Your task to perform on an android device: check battery use Image 0: 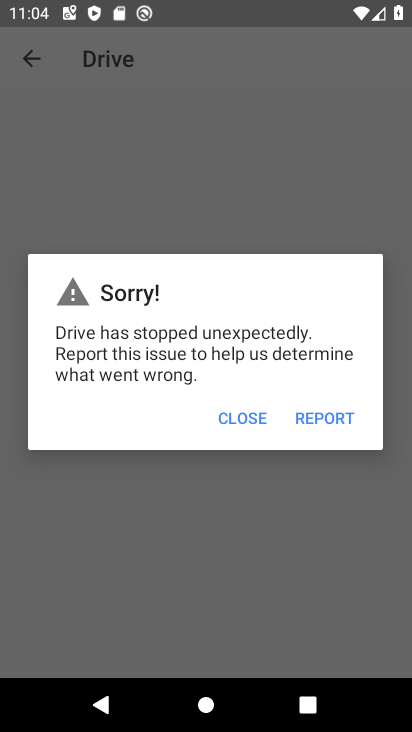
Step 0: press home button
Your task to perform on an android device: check battery use Image 1: 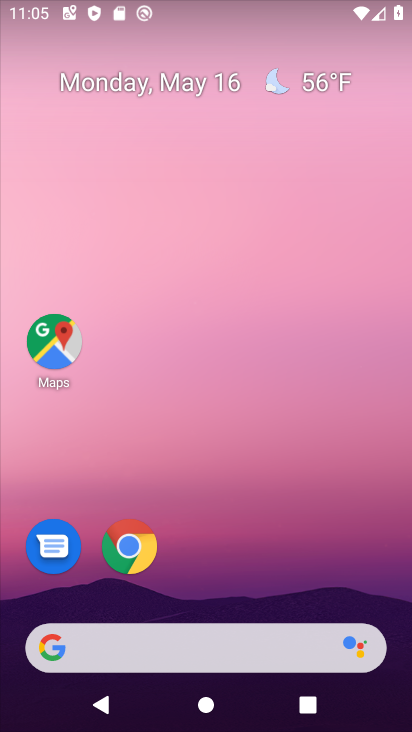
Step 1: drag from (363, 527) to (275, 2)
Your task to perform on an android device: check battery use Image 2: 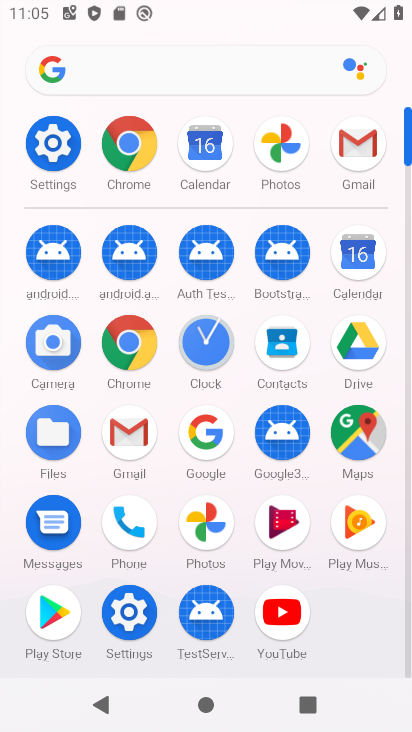
Step 2: click (52, 143)
Your task to perform on an android device: check battery use Image 3: 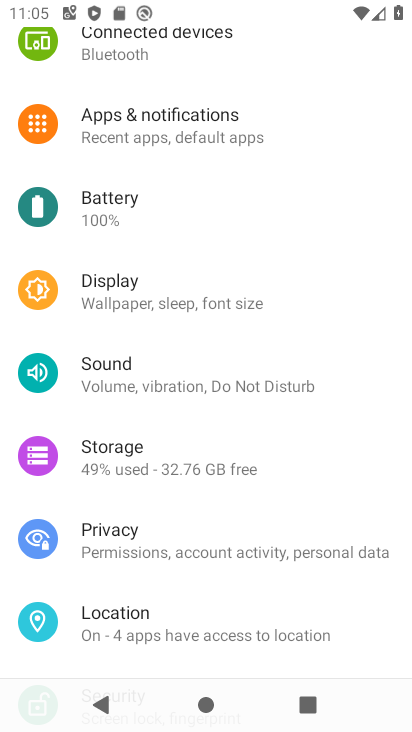
Step 3: click (134, 195)
Your task to perform on an android device: check battery use Image 4: 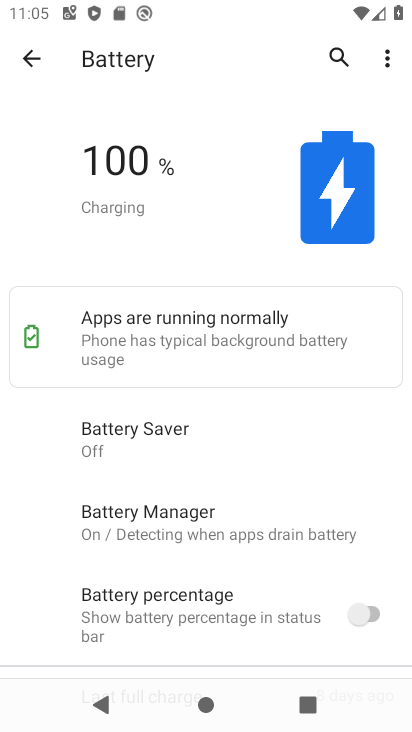
Step 4: task complete